Your task to perform on an android device: turn off improve location accuracy Image 0: 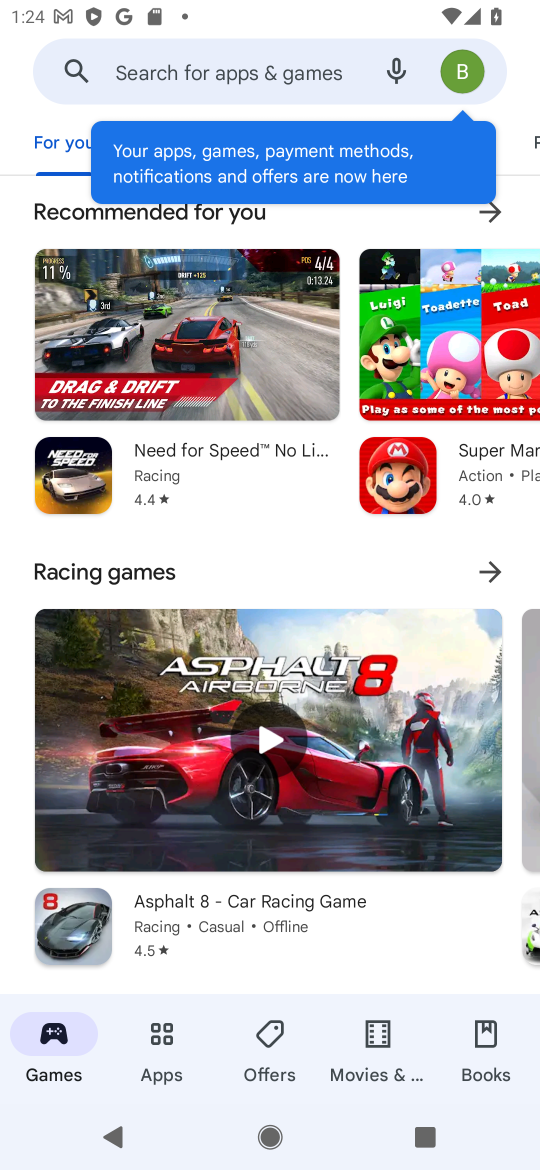
Step 0: press home button
Your task to perform on an android device: turn off improve location accuracy Image 1: 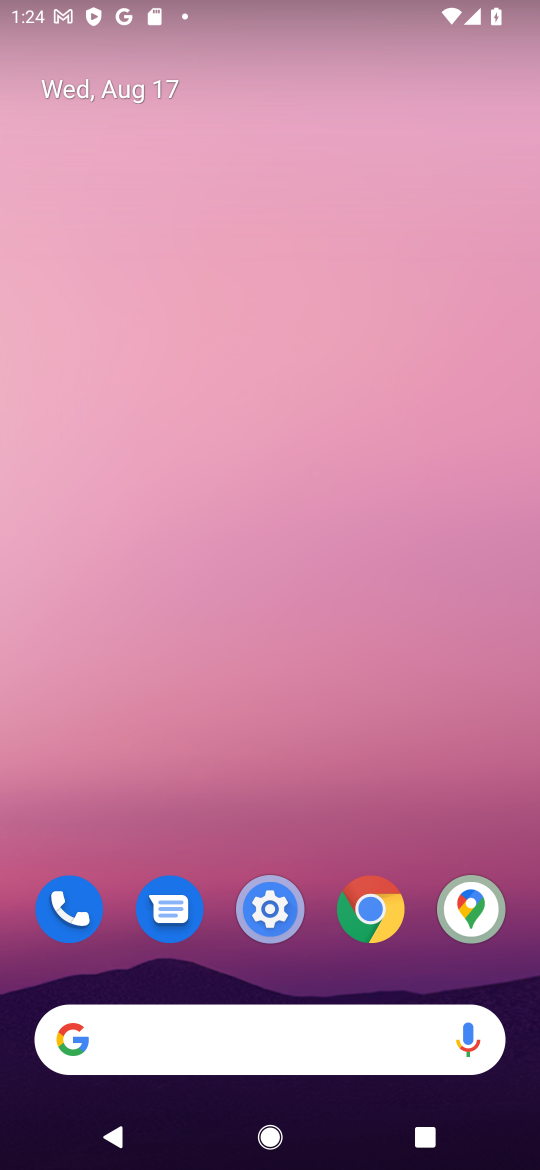
Step 1: task complete